Your task to perform on an android device: turn vacation reply on in the gmail app Image 0: 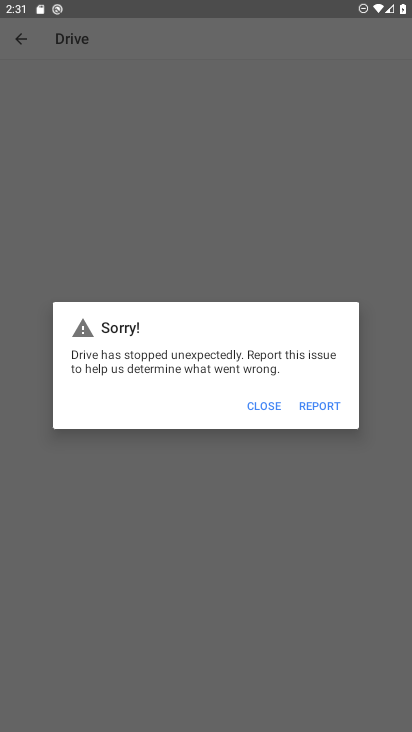
Step 0: press home button
Your task to perform on an android device: turn vacation reply on in the gmail app Image 1: 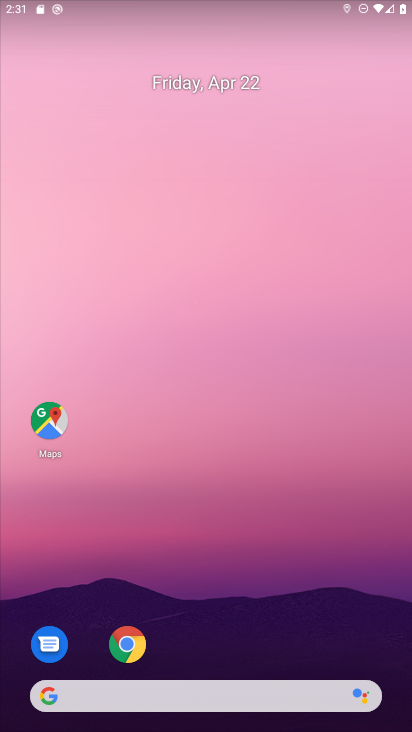
Step 1: drag from (249, 622) to (292, 134)
Your task to perform on an android device: turn vacation reply on in the gmail app Image 2: 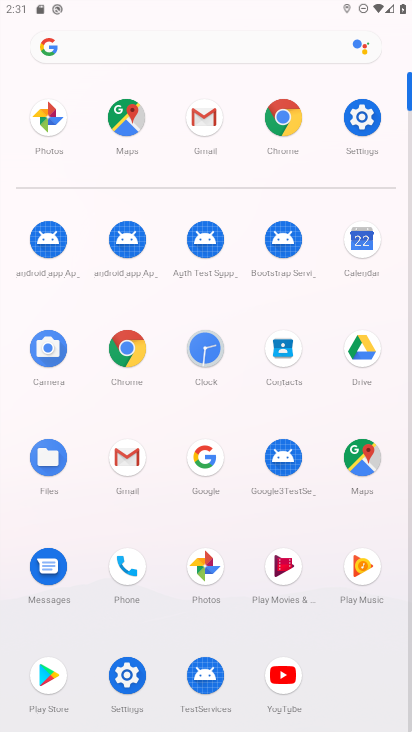
Step 2: click (133, 462)
Your task to perform on an android device: turn vacation reply on in the gmail app Image 3: 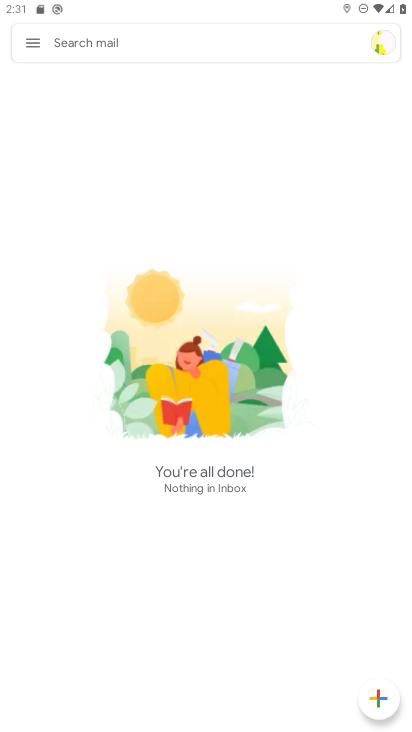
Step 3: click (31, 41)
Your task to perform on an android device: turn vacation reply on in the gmail app Image 4: 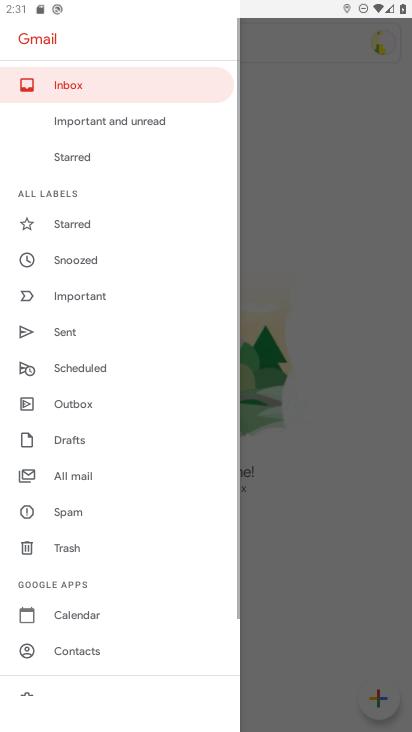
Step 4: drag from (133, 654) to (165, 196)
Your task to perform on an android device: turn vacation reply on in the gmail app Image 5: 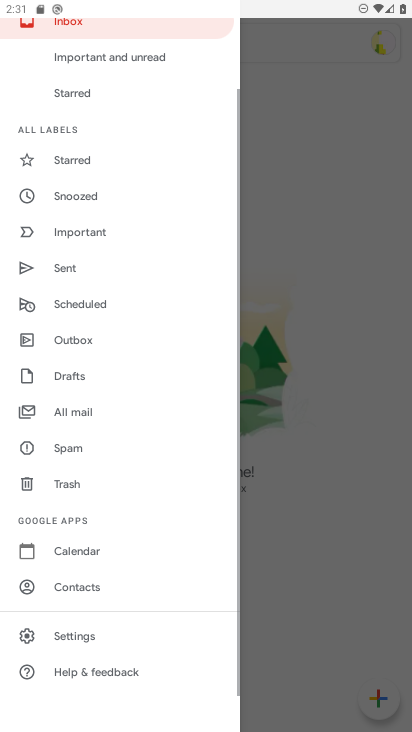
Step 5: click (59, 638)
Your task to perform on an android device: turn vacation reply on in the gmail app Image 6: 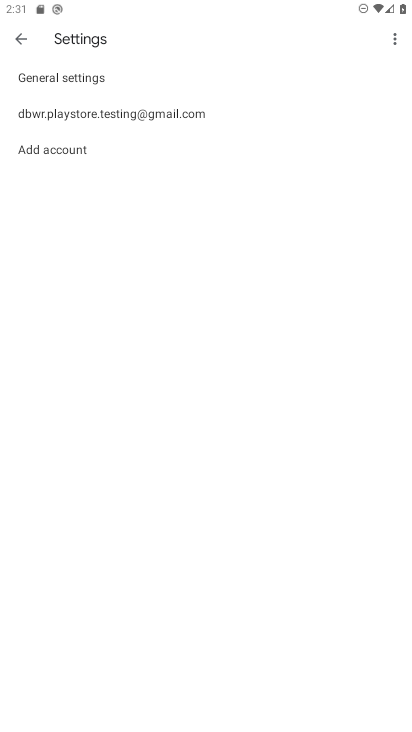
Step 6: click (128, 119)
Your task to perform on an android device: turn vacation reply on in the gmail app Image 7: 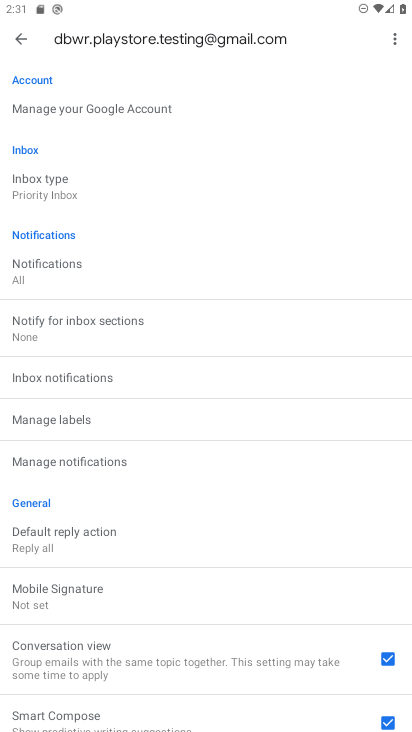
Step 7: drag from (120, 577) to (279, 164)
Your task to perform on an android device: turn vacation reply on in the gmail app Image 8: 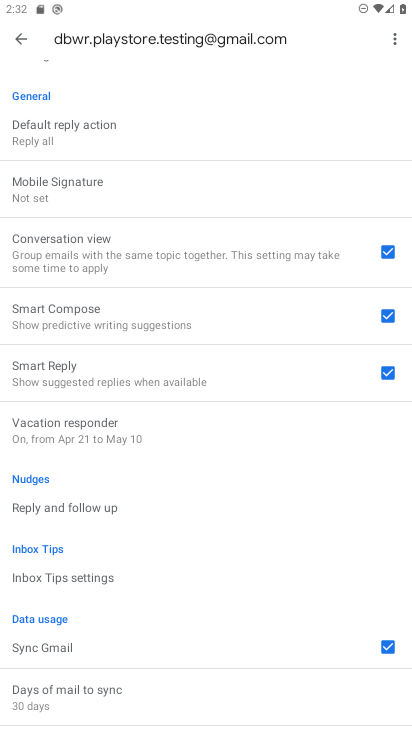
Step 8: click (111, 431)
Your task to perform on an android device: turn vacation reply on in the gmail app Image 9: 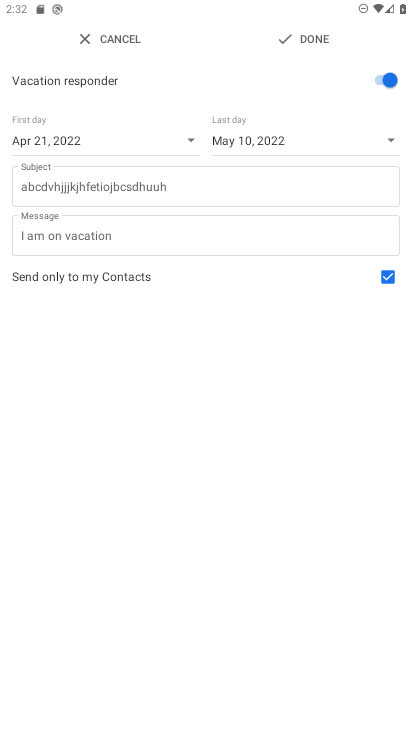
Step 9: task complete